Your task to perform on an android device: Go to Reddit.com Image 0: 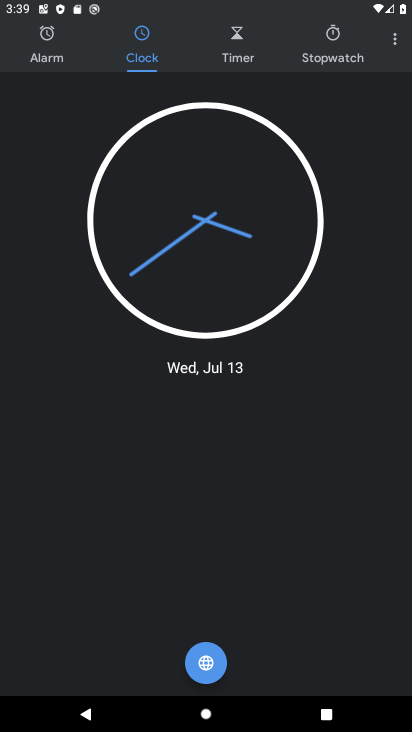
Step 0: press home button
Your task to perform on an android device: Go to Reddit.com Image 1: 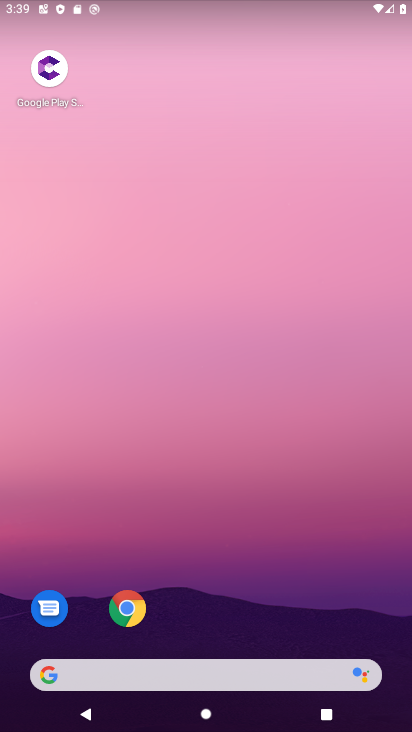
Step 1: drag from (257, 631) to (315, 179)
Your task to perform on an android device: Go to Reddit.com Image 2: 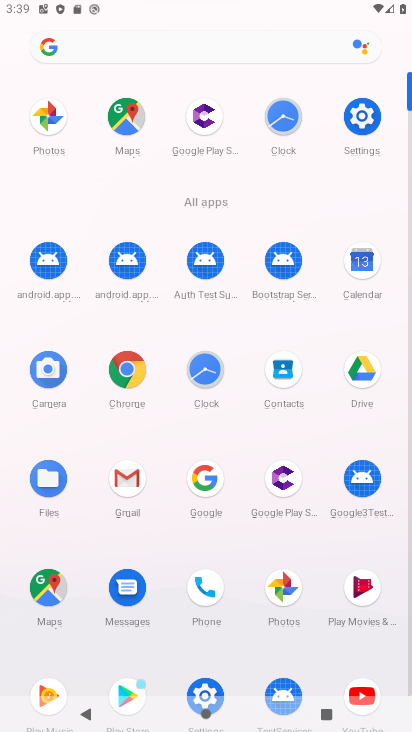
Step 2: click (208, 478)
Your task to perform on an android device: Go to Reddit.com Image 3: 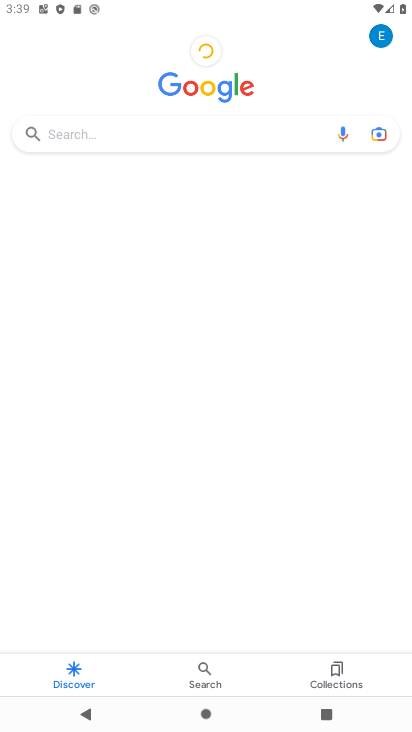
Step 3: click (138, 139)
Your task to perform on an android device: Go to Reddit.com Image 4: 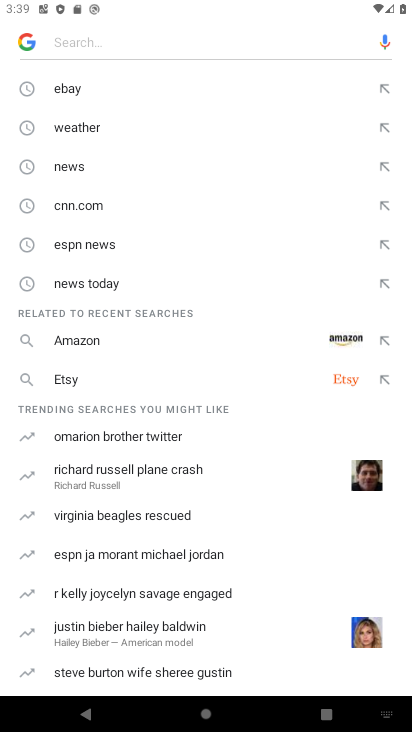
Step 4: type "Reddit.com"
Your task to perform on an android device: Go to Reddit.com Image 5: 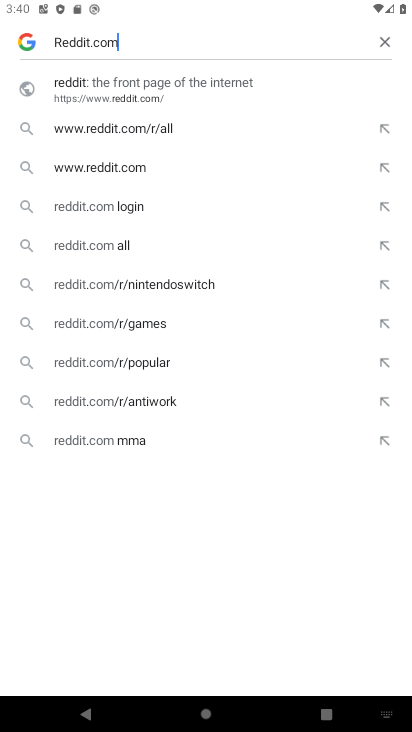
Step 5: click (170, 83)
Your task to perform on an android device: Go to Reddit.com Image 6: 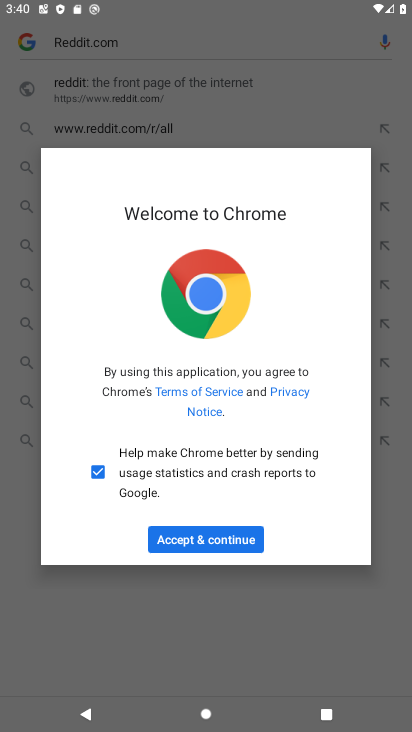
Step 6: click (230, 538)
Your task to perform on an android device: Go to Reddit.com Image 7: 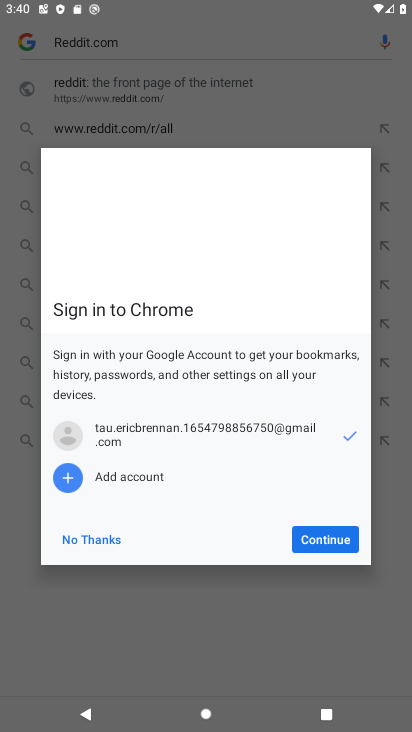
Step 7: click (305, 536)
Your task to perform on an android device: Go to Reddit.com Image 8: 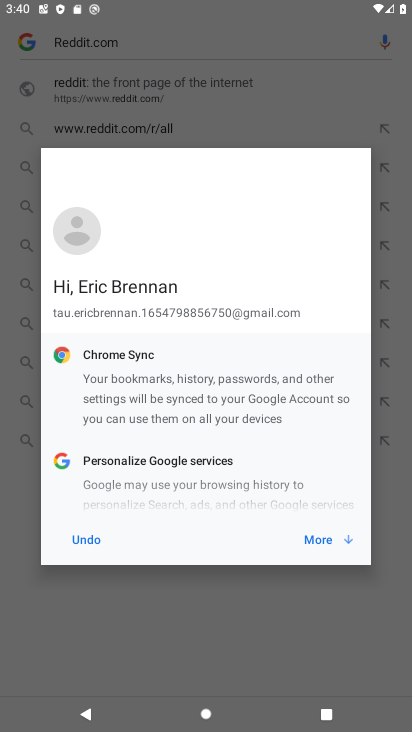
Step 8: click (319, 540)
Your task to perform on an android device: Go to Reddit.com Image 9: 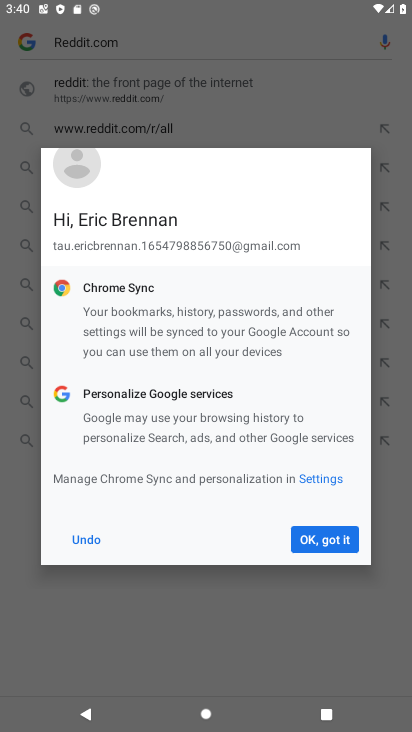
Step 9: click (319, 541)
Your task to perform on an android device: Go to Reddit.com Image 10: 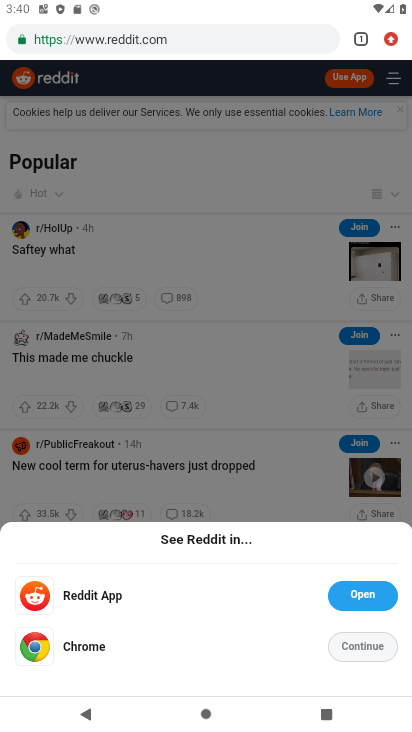
Step 10: task complete